Your task to perform on an android device: change notification settings in the gmail app Image 0: 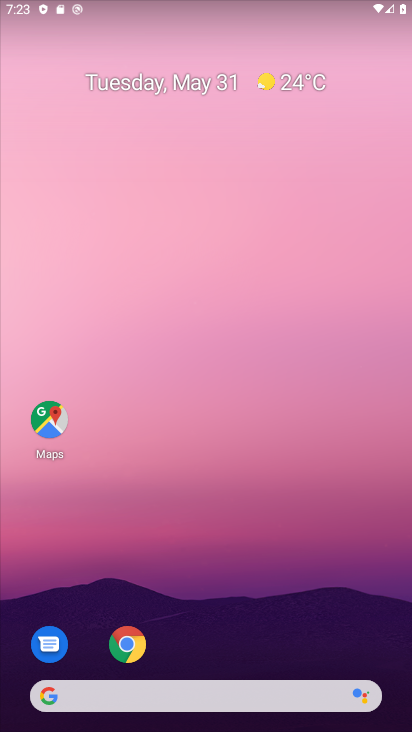
Step 0: drag from (307, 527) to (351, 212)
Your task to perform on an android device: change notification settings in the gmail app Image 1: 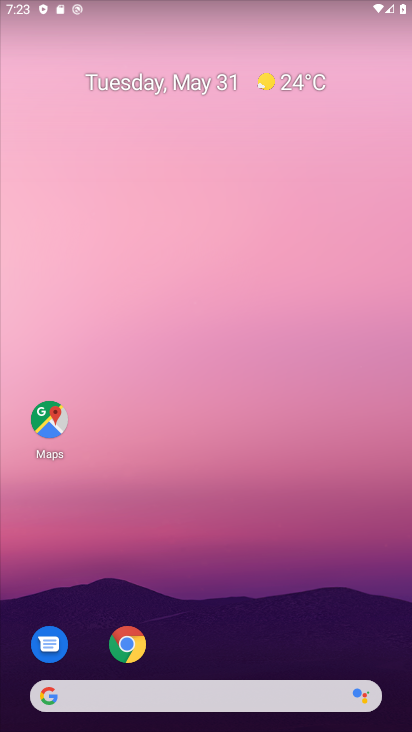
Step 1: drag from (251, 645) to (255, 232)
Your task to perform on an android device: change notification settings in the gmail app Image 2: 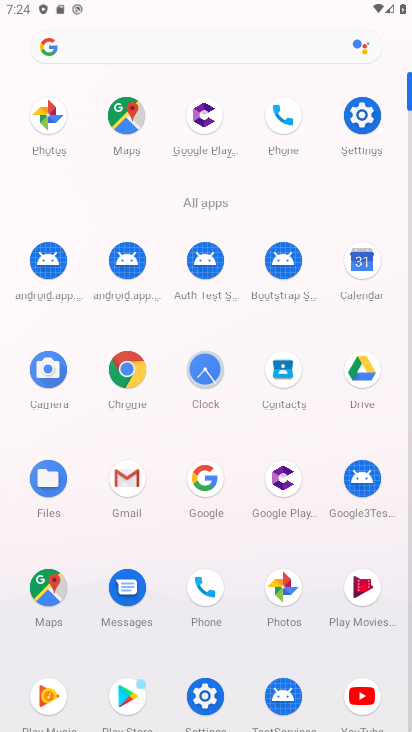
Step 2: click (138, 484)
Your task to perform on an android device: change notification settings in the gmail app Image 3: 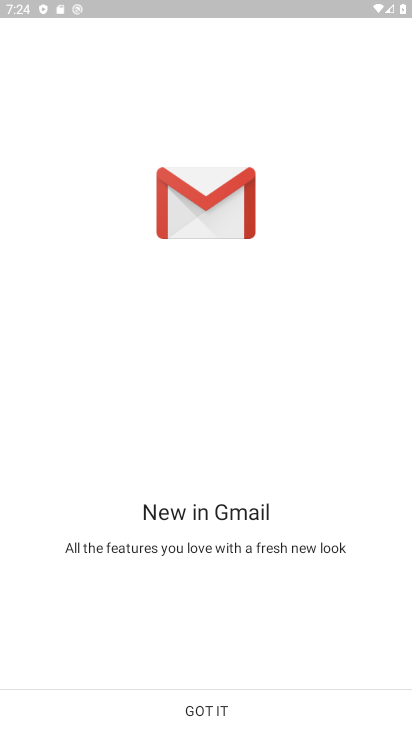
Step 3: click (212, 717)
Your task to perform on an android device: change notification settings in the gmail app Image 4: 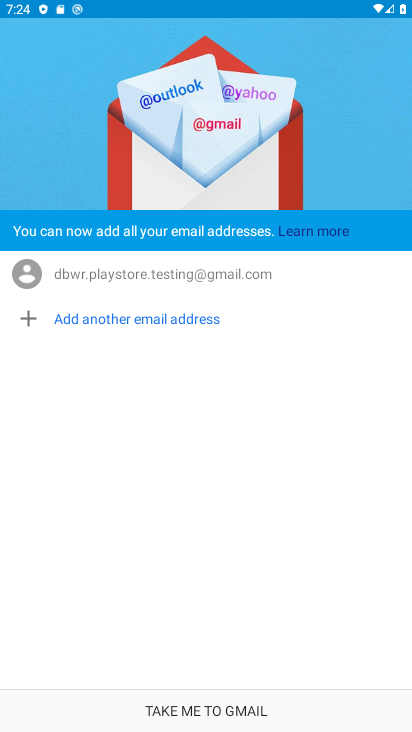
Step 4: click (212, 711)
Your task to perform on an android device: change notification settings in the gmail app Image 5: 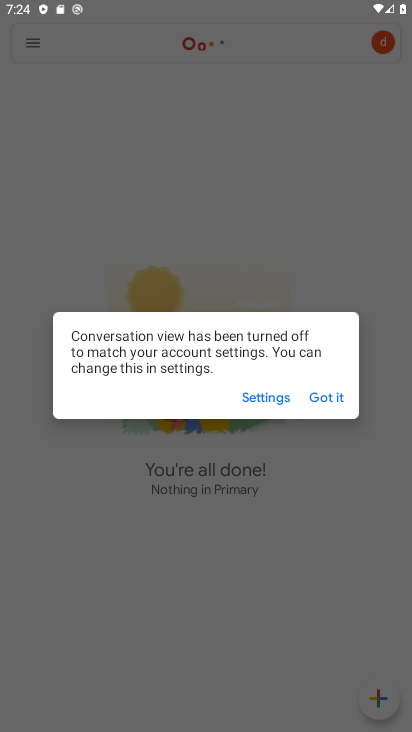
Step 5: click (320, 399)
Your task to perform on an android device: change notification settings in the gmail app Image 6: 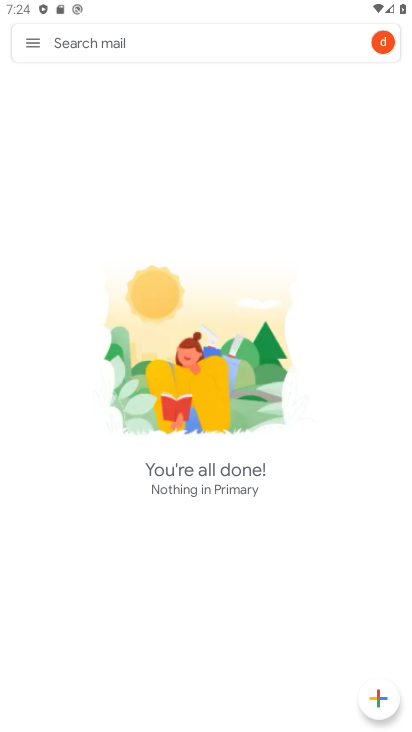
Step 6: click (24, 46)
Your task to perform on an android device: change notification settings in the gmail app Image 7: 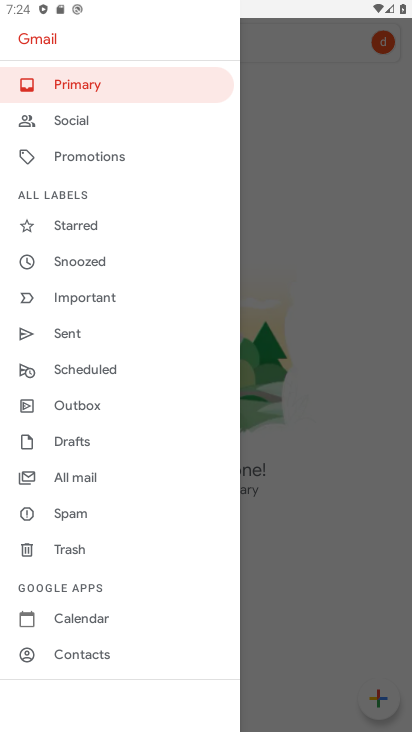
Step 7: drag from (136, 628) to (138, 325)
Your task to perform on an android device: change notification settings in the gmail app Image 8: 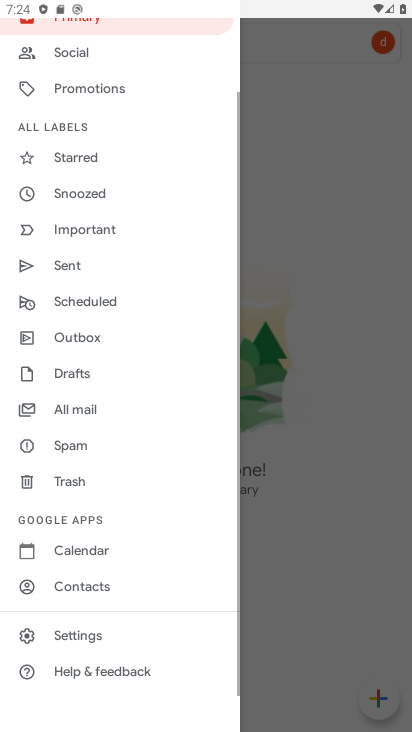
Step 8: click (122, 629)
Your task to perform on an android device: change notification settings in the gmail app Image 9: 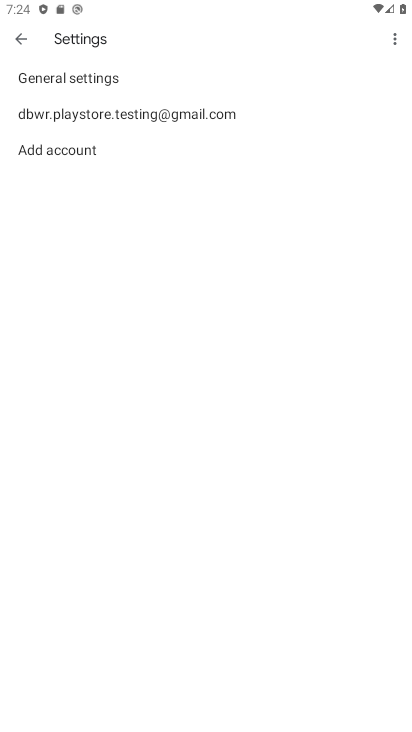
Step 9: click (239, 122)
Your task to perform on an android device: change notification settings in the gmail app Image 10: 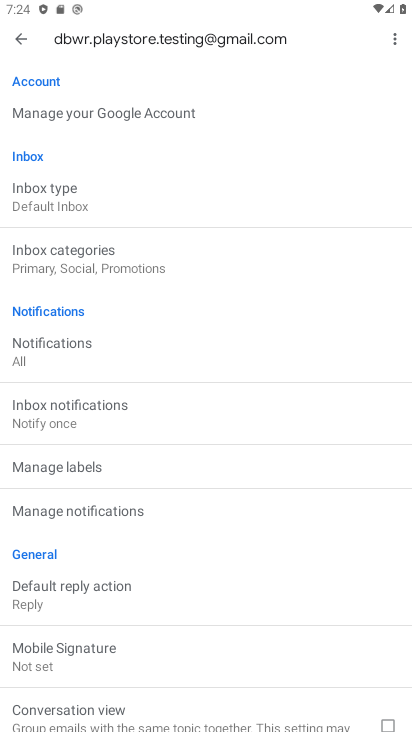
Step 10: click (98, 339)
Your task to perform on an android device: change notification settings in the gmail app Image 11: 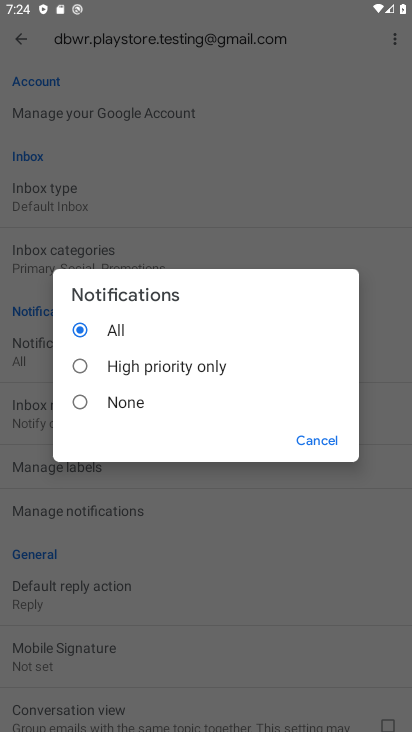
Step 11: click (126, 401)
Your task to perform on an android device: change notification settings in the gmail app Image 12: 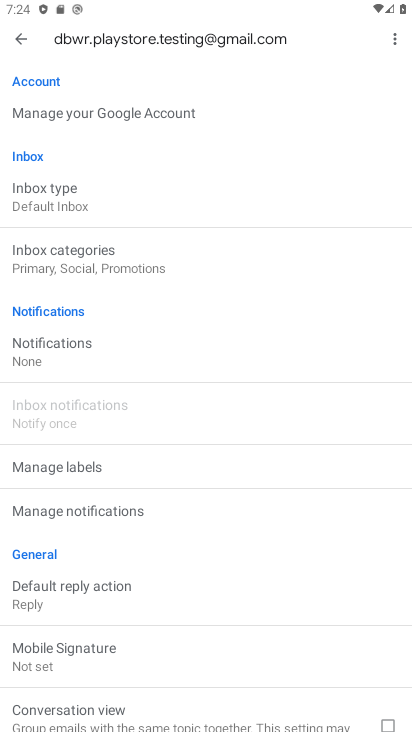
Step 12: task complete